Your task to perform on an android device: toggle pop-ups in chrome Image 0: 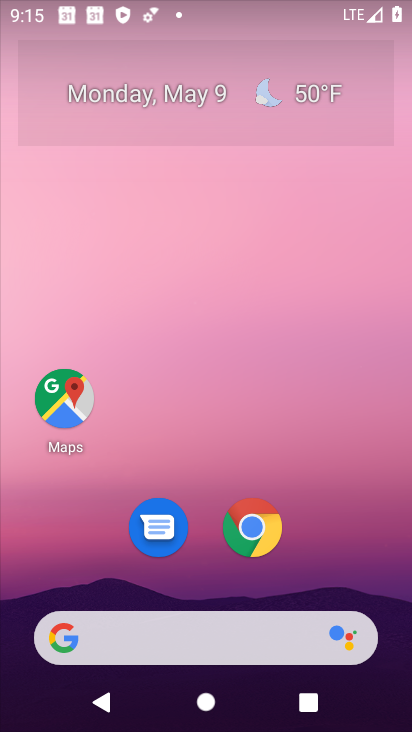
Step 0: click (256, 525)
Your task to perform on an android device: toggle pop-ups in chrome Image 1: 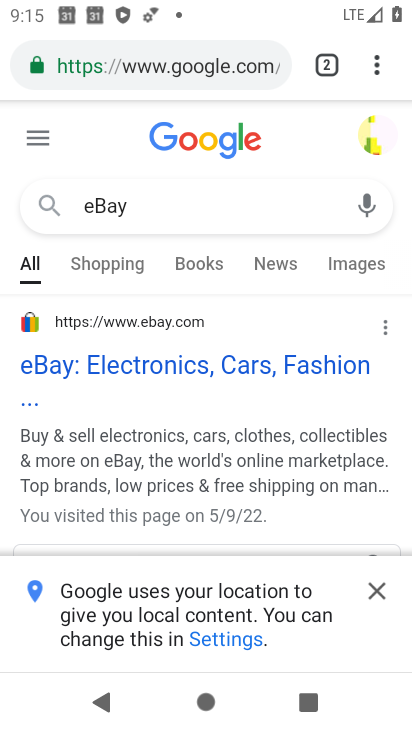
Step 1: click (380, 64)
Your task to perform on an android device: toggle pop-ups in chrome Image 2: 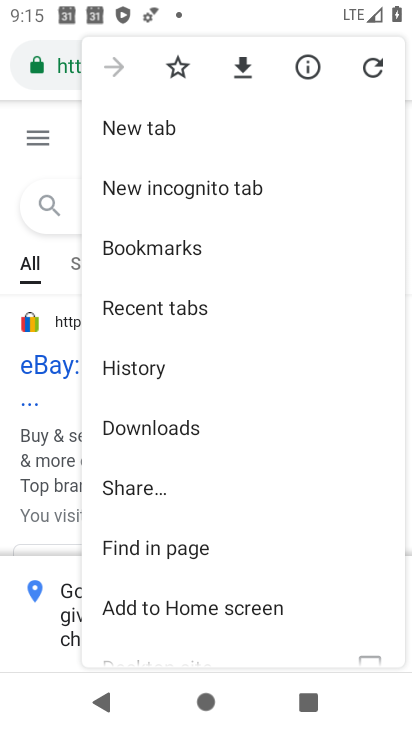
Step 2: drag from (190, 586) to (236, 424)
Your task to perform on an android device: toggle pop-ups in chrome Image 3: 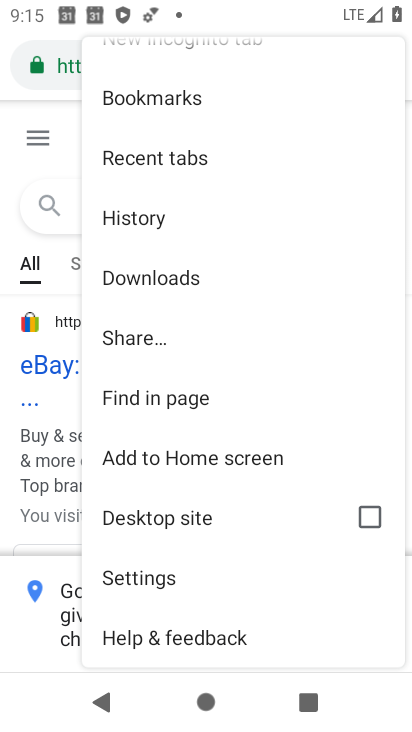
Step 3: click (162, 585)
Your task to perform on an android device: toggle pop-ups in chrome Image 4: 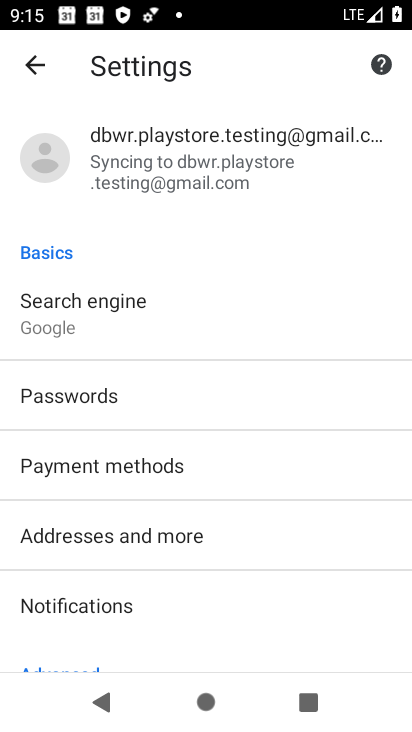
Step 4: drag from (147, 528) to (172, 256)
Your task to perform on an android device: toggle pop-ups in chrome Image 5: 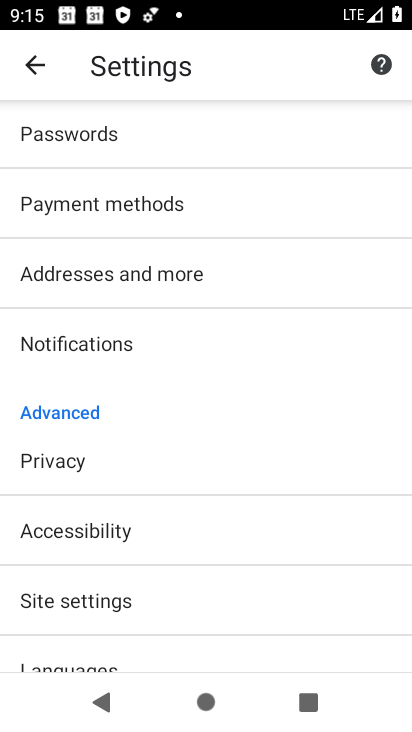
Step 5: click (81, 606)
Your task to perform on an android device: toggle pop-ups in chrome Image 6: 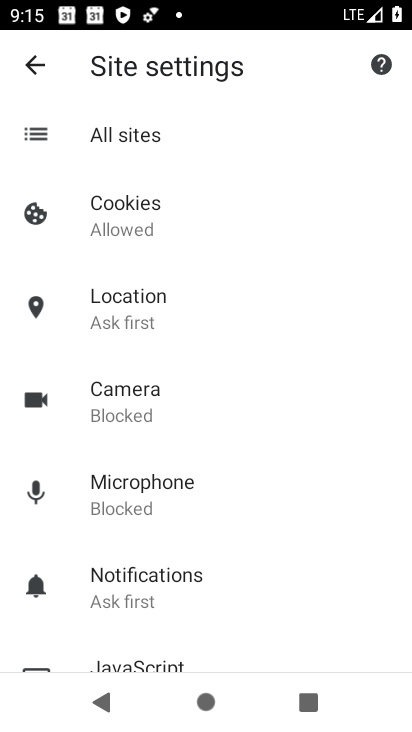
Step 6: drag from (137, 634) to (200, 246)
Your task to perform on an android device: toggle pop-ups in chrome Image 7: 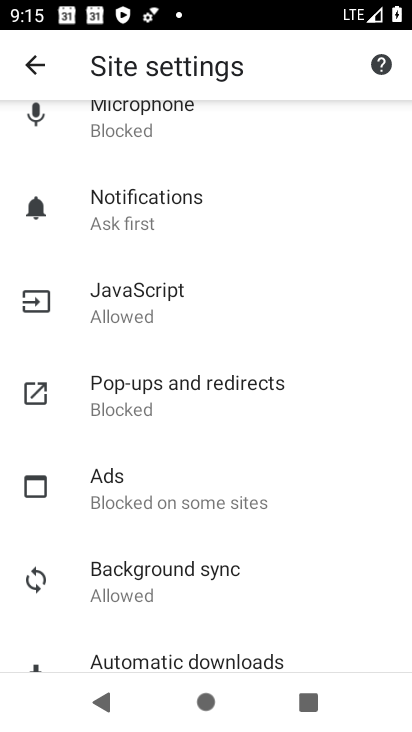
Step 7: click (162, 404)
Your task to perform on an android device: toggle pop-ups in chrome Image 8: 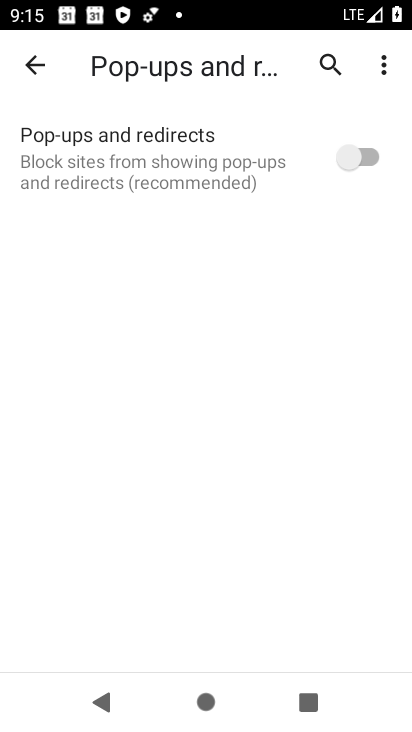
Step 8: click (360, 146)
Your task to perform on an android device: toggle pop-ups in chrome Image 9: 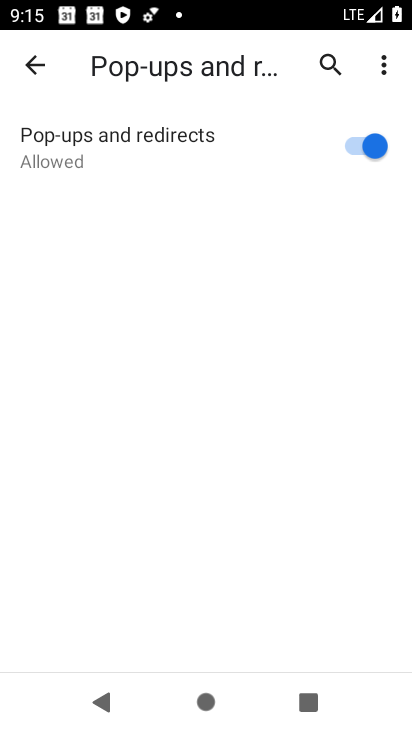
Step 9: task complete